Your task to perform on an android device: Open calendar and show me the third week of next month Image 0: 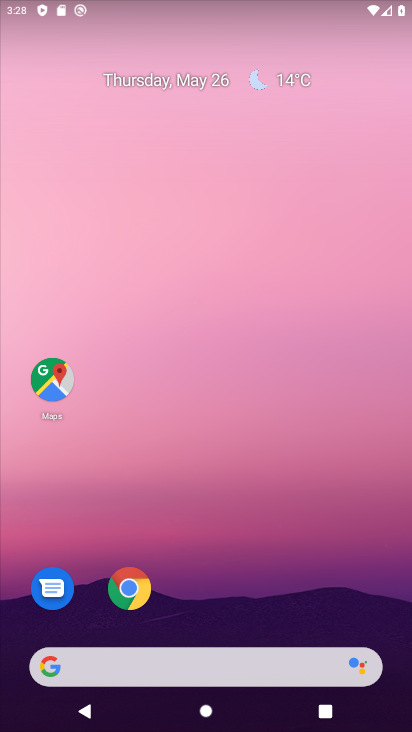
Step 0: drag from (234, 601) to (274, 223)
Your task to perform on an android device: Open calendar and show me the third week of next month Image 1: 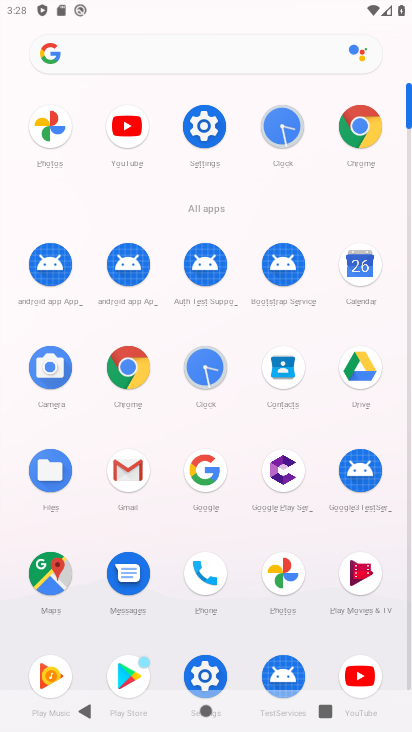
Step 1: click (375, 274)
Your task to perform on an android device: Open calendar and show me the third week of next month Image 2: 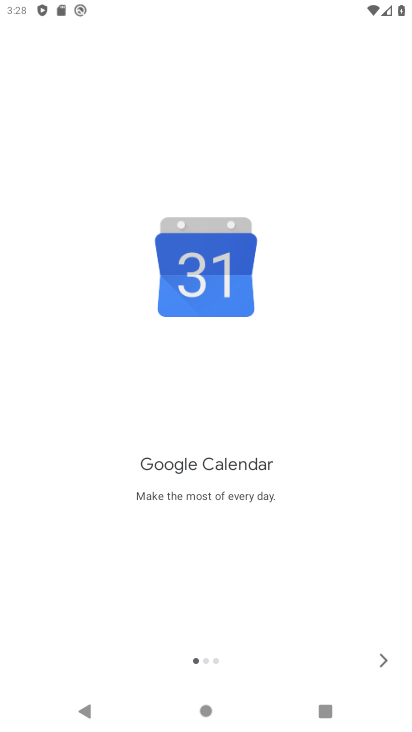
Step 2: click (390, 668)
Your task to perform on an android device: Open calendar and show me the third week of next month Image 3: 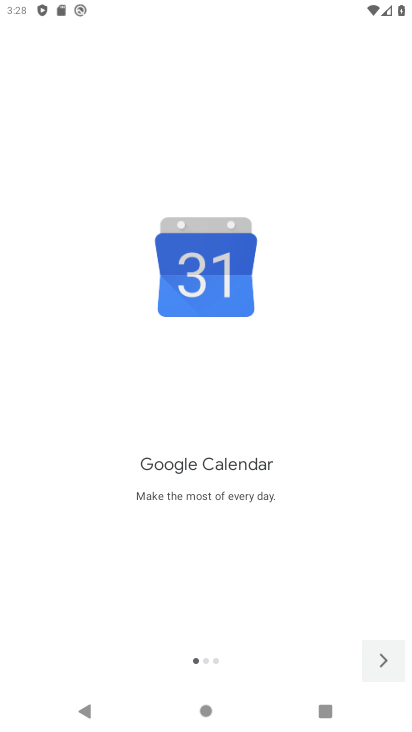
Step 3: click (390, 668)
Your task to perform on an android device: Open calendar and show me the third week of next month Image 4: 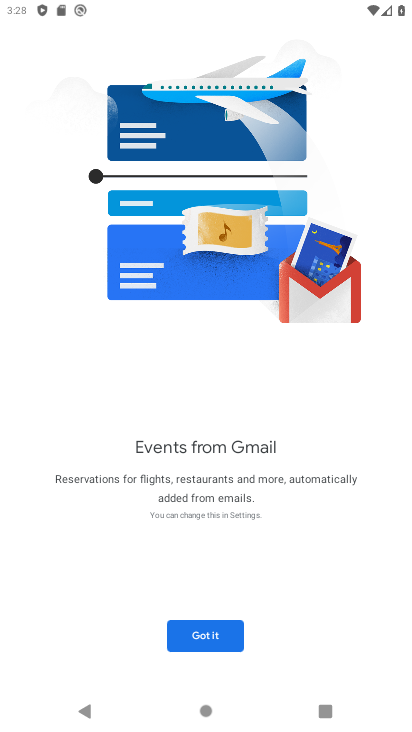
Step 4: click (210, 617)
Your task to perform on an android device: Open calendar and show me the third week of next month Image 5: 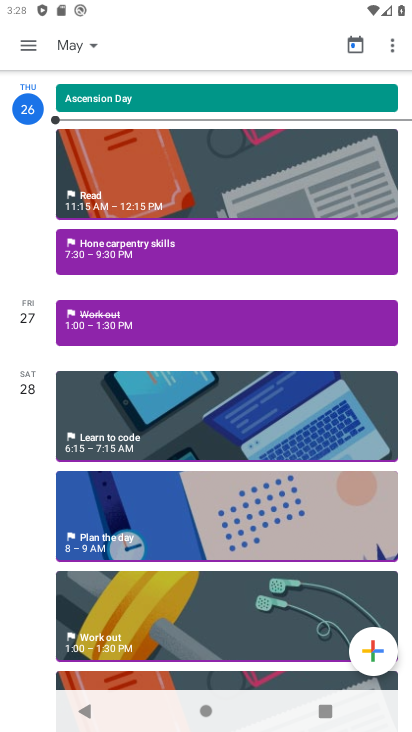
Step 5: click (89, 46)
Your task to perform on an android device: Open calendar and show me the third week of next month Image 6: 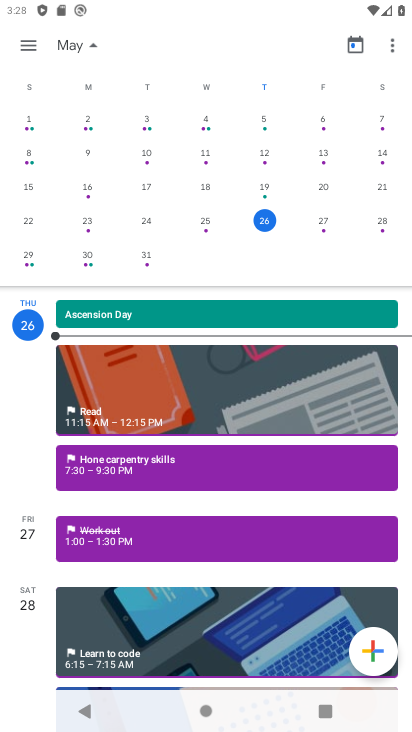
Step 6: drag from (375, 253) to (0, 272)
Your task to perform on an android device: Open calendar and show me the third week of next month Image 7: 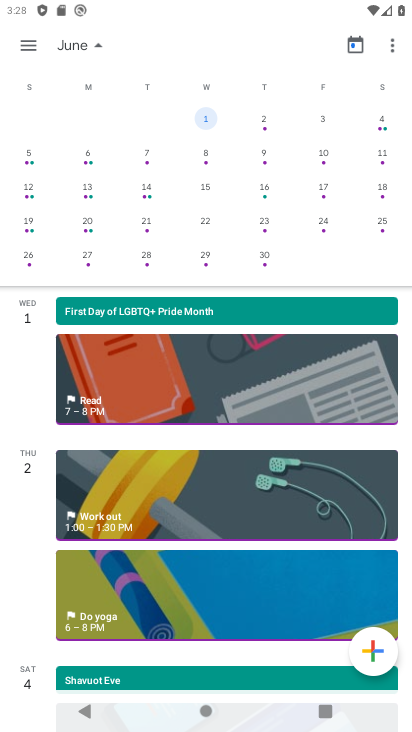
Step 7: click (201, 224)
Your task to perform on an android device: Open calendar and show me the third week of next month Image 8: 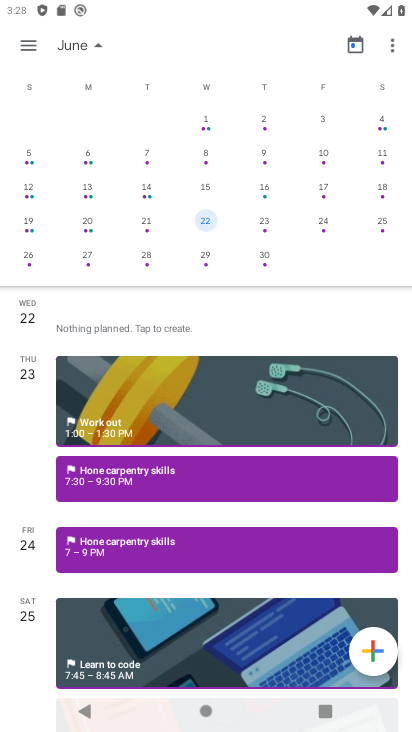
Step 8: task complete